Your task to perform on an android device: check the backup settings in the google photos Image 0: 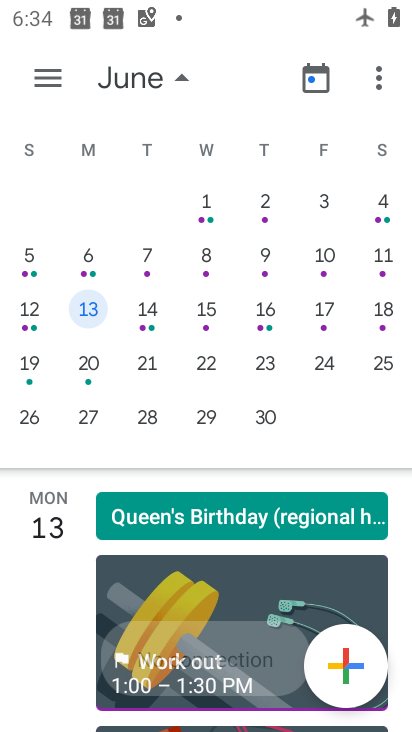
Step 0: press home button
Your task to perform on an android device: check the backup settings in the google photos Image 1: 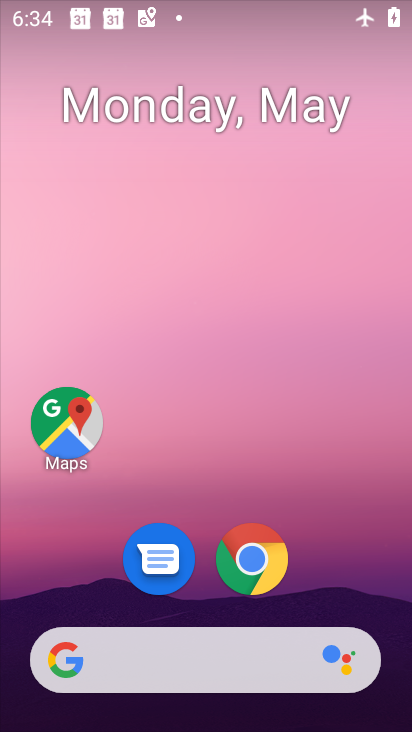
Step 1: drag from (392, 650) to (228, 29)
Your task to perform on an android device: check the backup settings in the google photos Image 2: 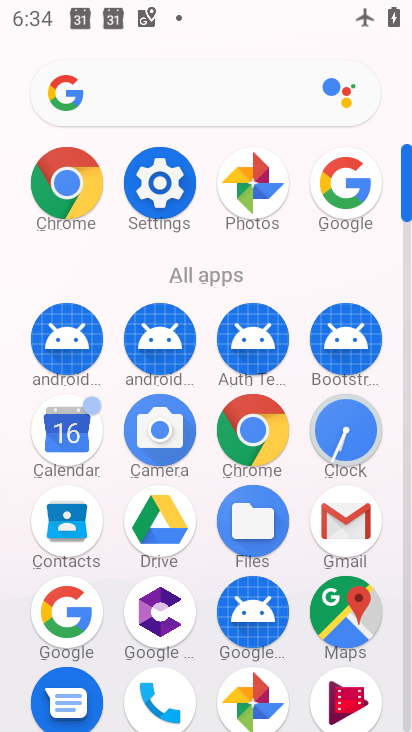
Step 2: click (260, 678)
Your task to perform on an android device: check the backup settings in the google photos Image 3: 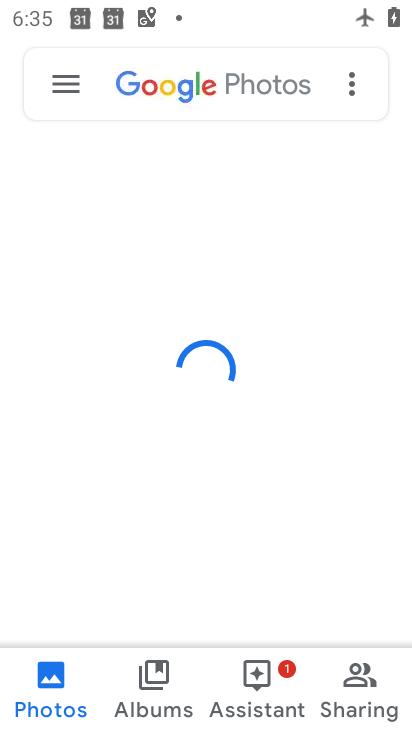
Step 3: click (62, 87)
Your task to perform on an android device: check the backup settings in the google photos Image 4: 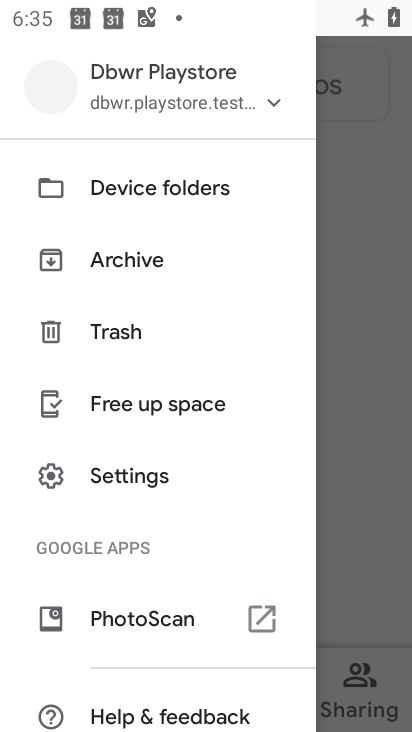
Step 4: click (147, 470)
Your task to perform on an android device: check the backup settings in the google photos Image 5: 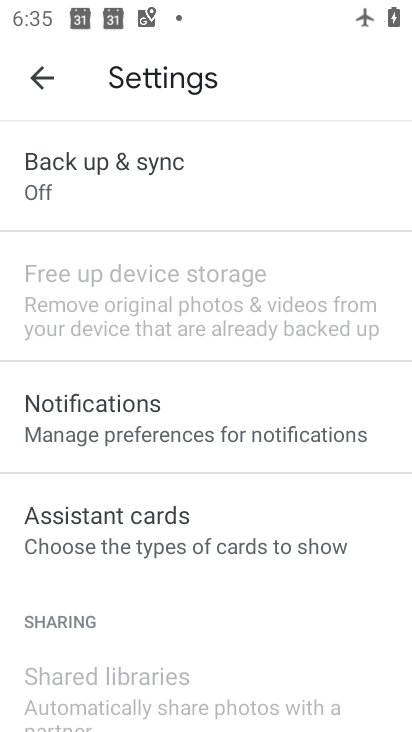
Step 5: click (199, 198)
Your task to perform on an android device: check the backup settings in the google photos Image 6: 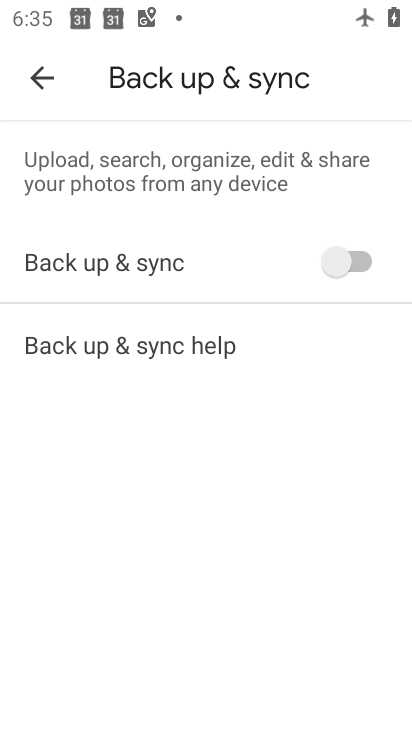
Step 6: task complete